Your task to perform on an android device: turn on location history Image 0: 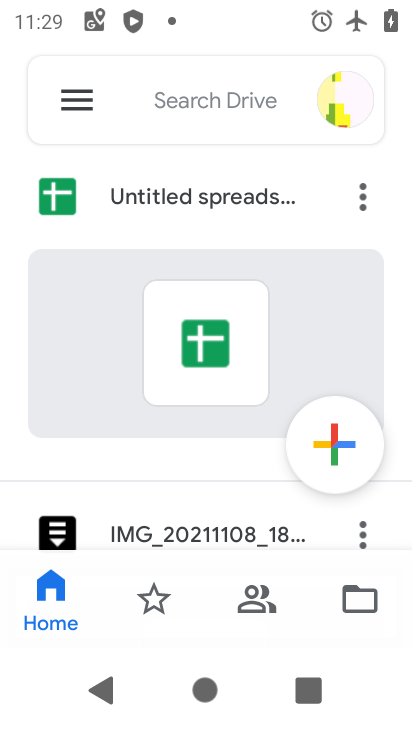
Step 0: press home button
Your task to perform on an android device: turn on location history Image 1: 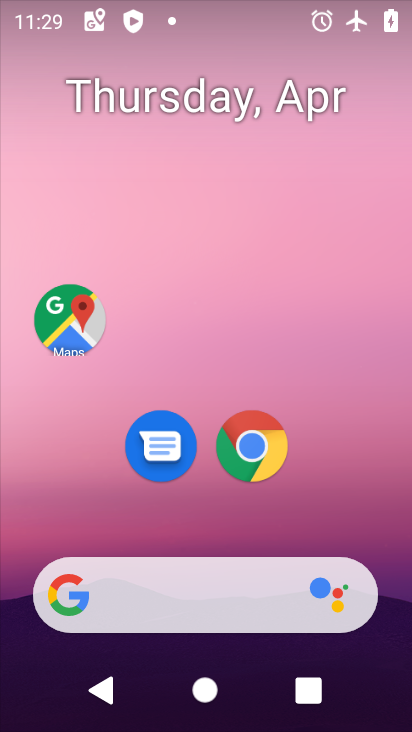
Step 1: drag from (378, 405) to (354, 264)
Your task to perform on an android device: turn on location history Image 2: 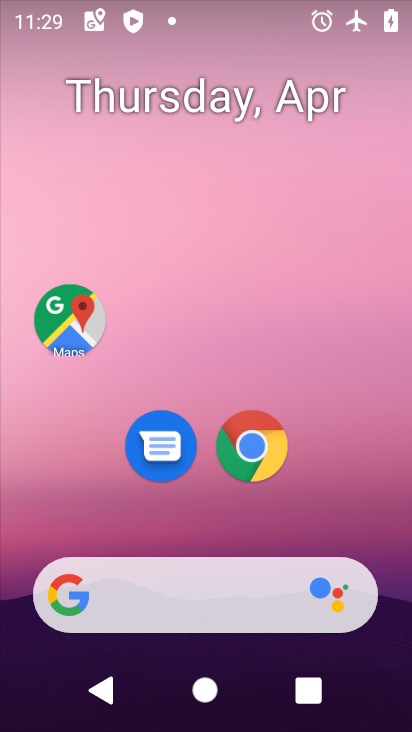
Step 2: click (42, 308)
Your task to perform on an android device: turn on location history Image 3: 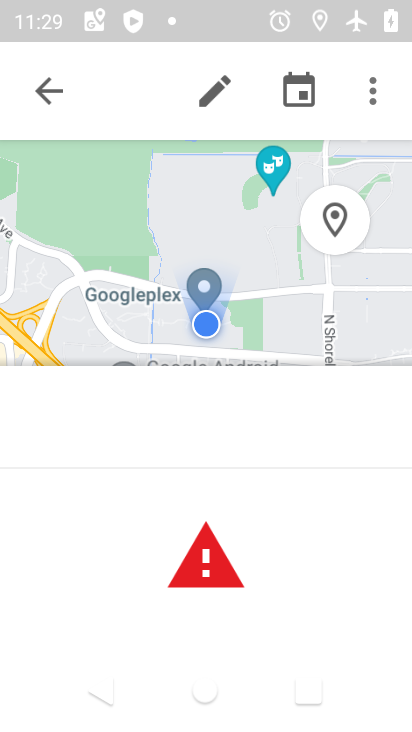
Step 3: click (371, 110)
Your task to perform on an android device: turn on location history Image 4: 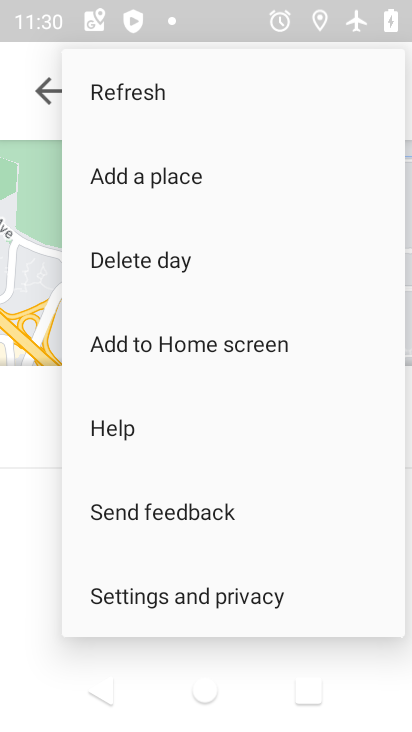
Step 4: click (301, 589)
Your task to perform on an android device: turn on location history Image 5: 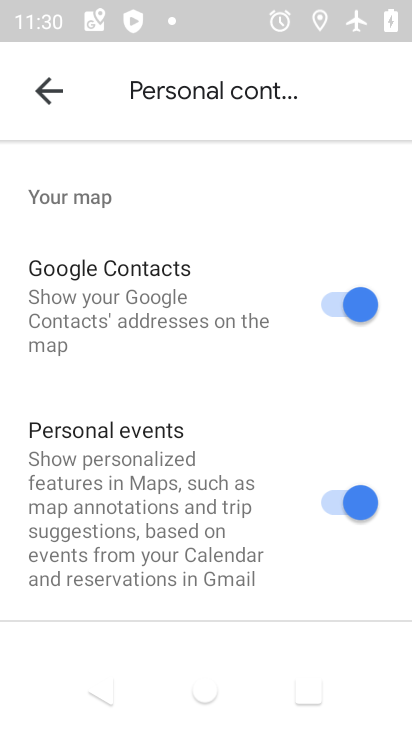
Step 5: drag from (301, 589) to (286, 221)
Your task to perform on an android device: turn on location history Image 6: 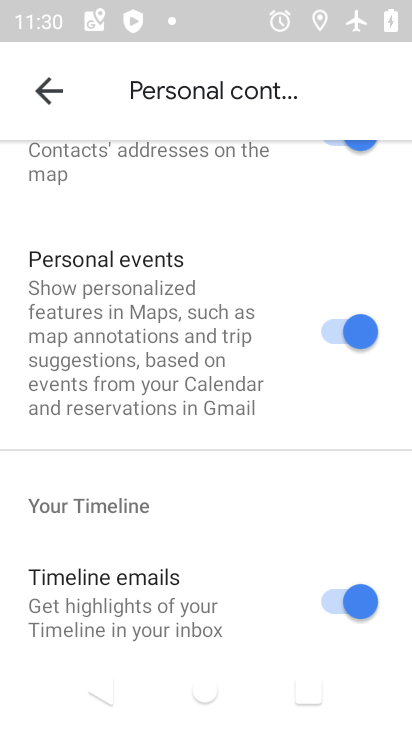
Step 6: drag from (245, 525) to (261, 38)
Your task to perform on an android device: turn on location history Image 7: 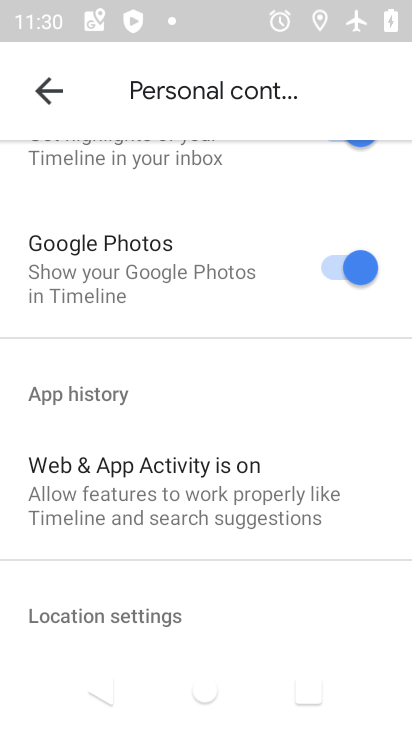
Step 7: drag from (271, 576) to (268, 202)
Your task to perform on an android device: turn on location history Image 8: 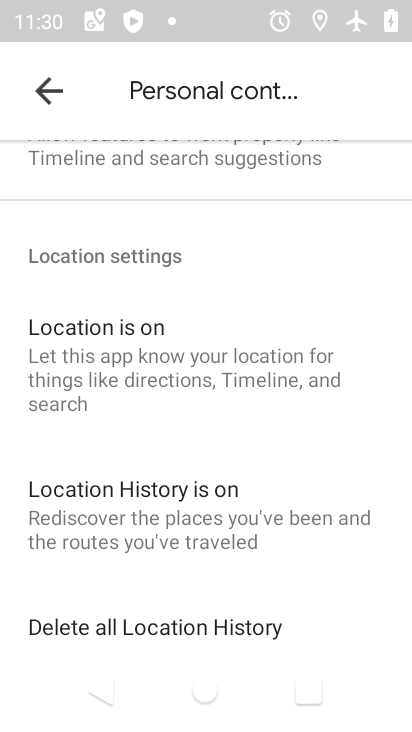
Step 8: click (267, 498)
Your task to perform on an android device: turn on location history Image 9: 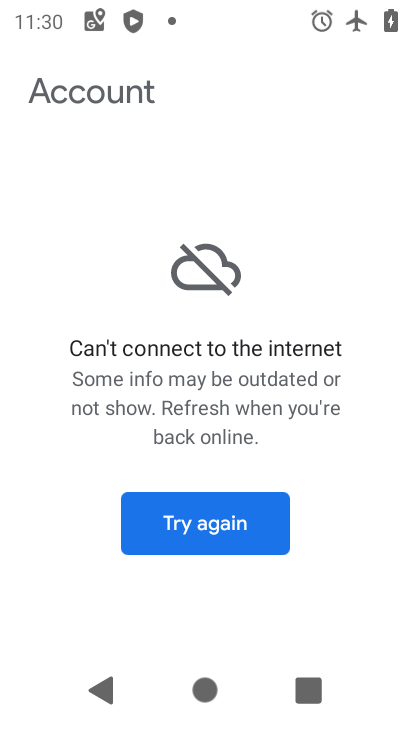
Step 9: task complete